Your task to perform on an android device: change keyboard looks Image 0: 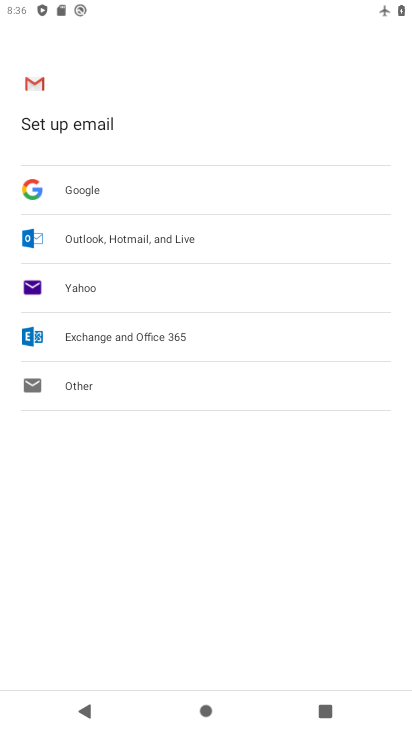
Step 0: press home button
Your task to perform on an android device: change keyboard looks Image 1: 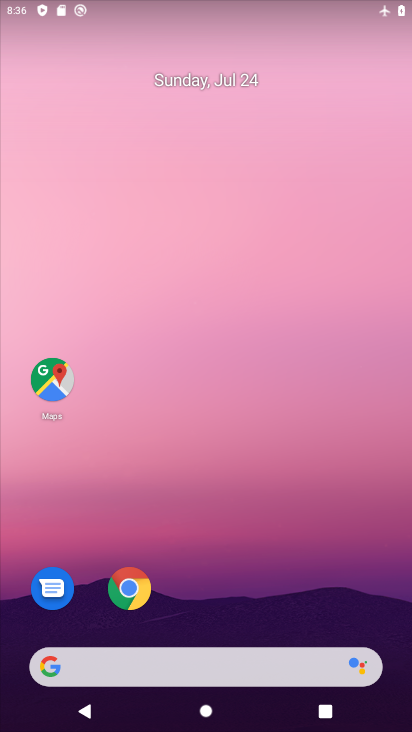
Step 1: drag from (232, 617) to (248, 227)
Your task to perform on an android device: change keyboard looks Image 2: 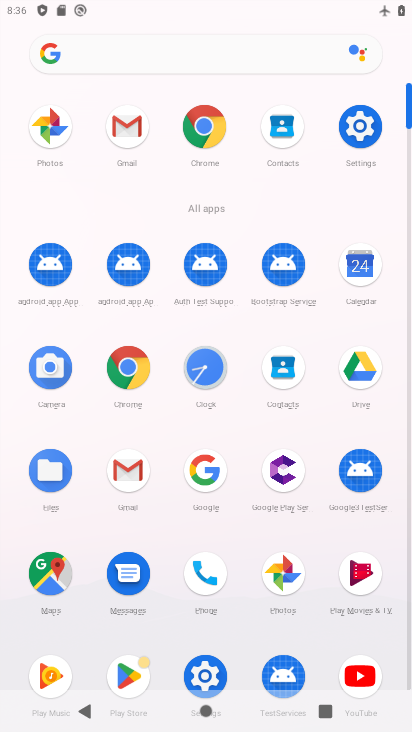
Step 2: click (346, 118)
Your task to perform on an android device: change keyboard looks Image 3: 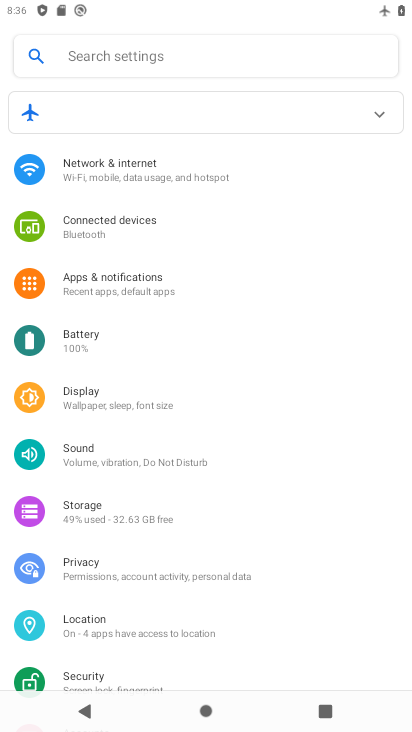
Step 3: drag from (96, 628) to (127, 321)
Your task to perform on an android device: change keyboard looks Image 4: 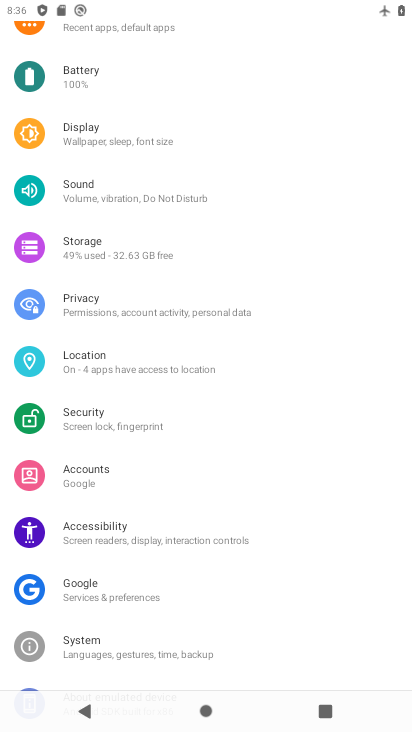
Step 4: click (123, 658)
Your task to perform on an android device: change keyboard looks Image 5: 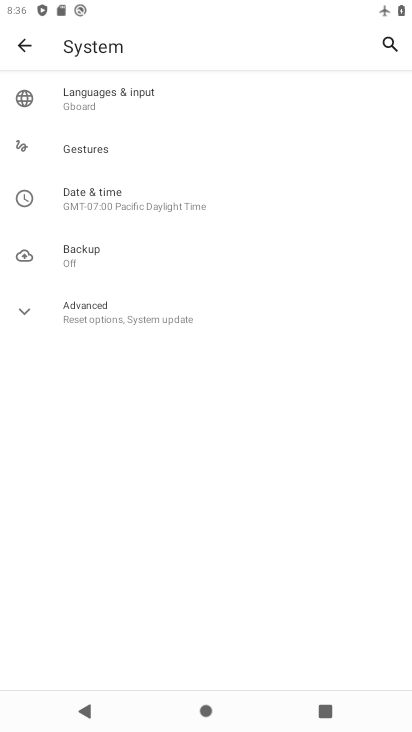
Step 5: click (104, 106)
Your task to perform on an android device: change keyboard looks Image 6: 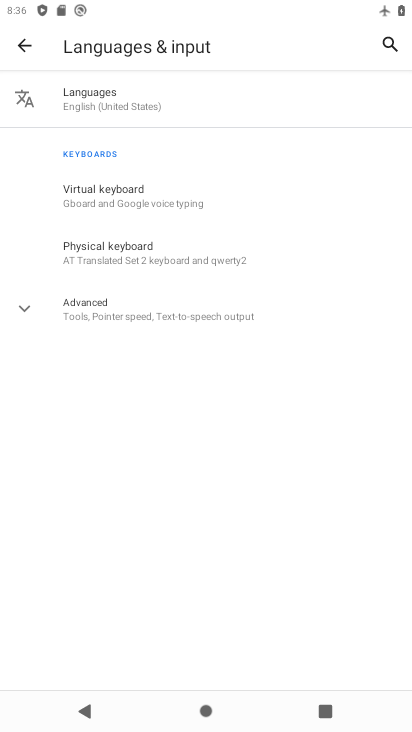
Step 6: click (95, 202)
Your task to perform on an android device: change keyboard looks Image 7: 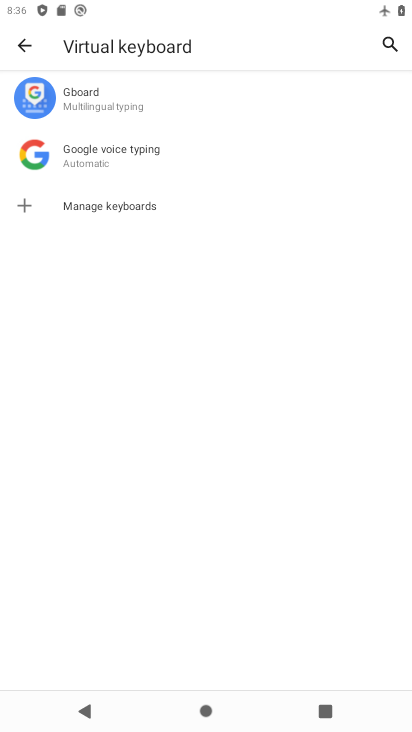
Step 7: click (132, 81)
Your task to perform on an android device: change keyboard looks Image 8: 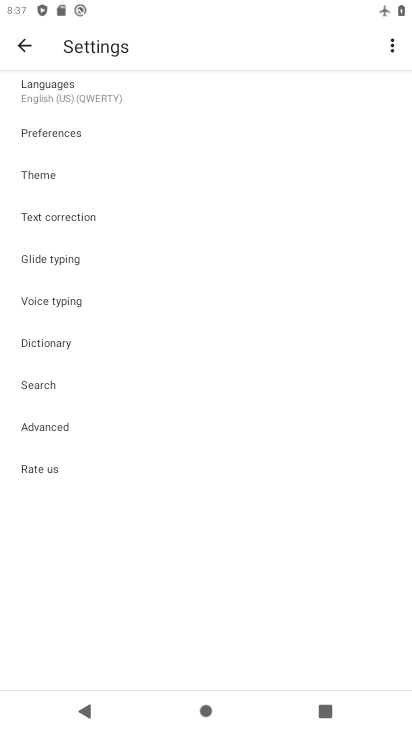
Step 8: click (60, 171)
Your task to perform on an android device: change keyboard looks Image 9: 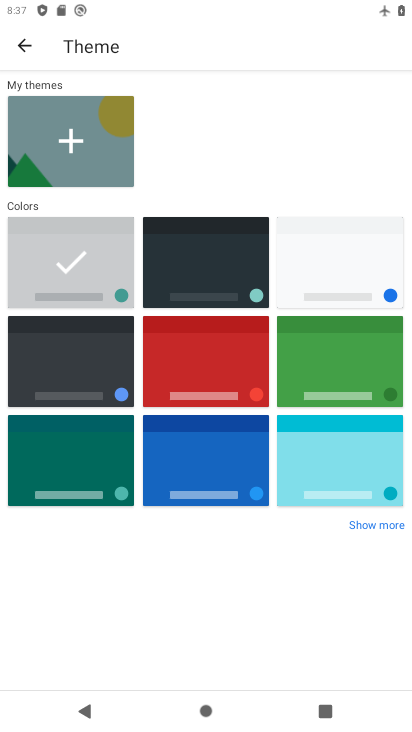
Step 9: click (213, 474)
Your task to perform on an android device: change keyboard looks Image 10: 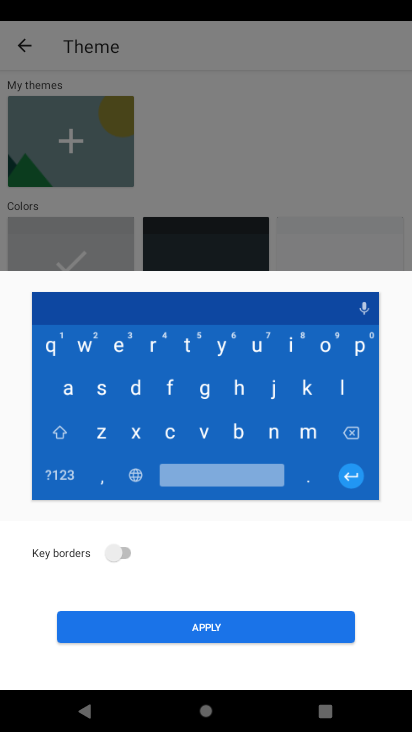
Step 10: click (205, 620)
Your task to perform on an android device: change keyboard looks Image 11: 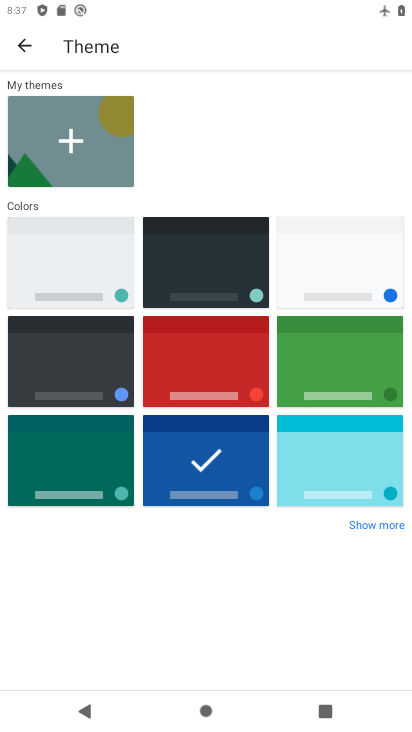
Step 11: task complete